Your task to perform on an android device: toggle data saver in the chrome app Image 0: 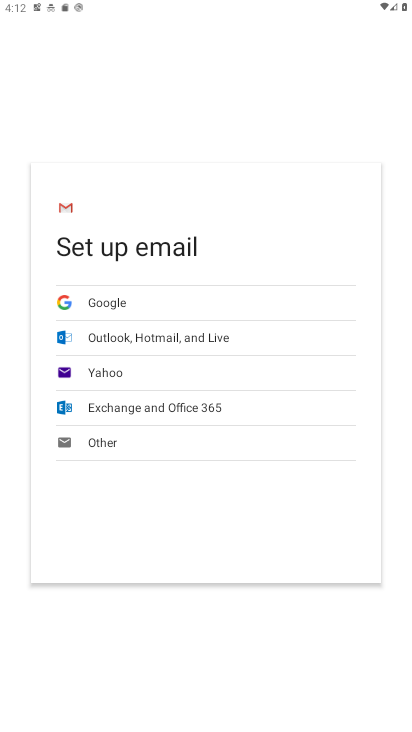
Step 0: press home button
Your task to perform on an android device: toggle data saver in the chrome app Image 1: 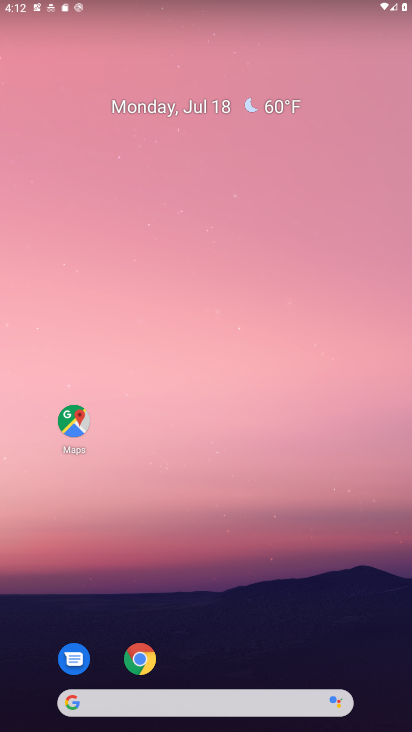
Step 1: drag from (271, 720) to (383, 4)
Your task to perform on an android device: toggle data saver in the chrome app Image 2: 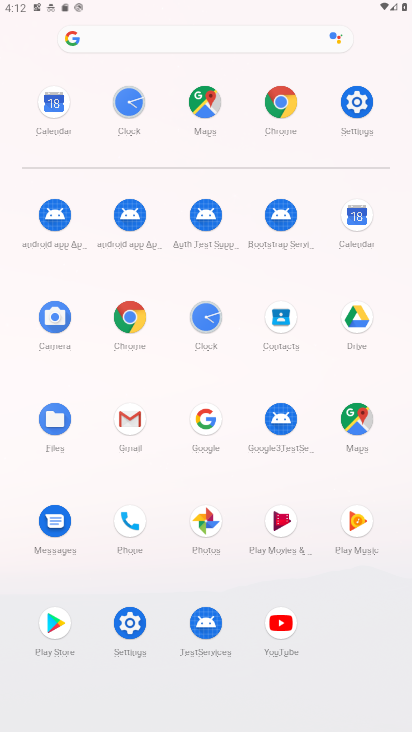
Step 2: click (128, 321)
Your task to perform on an android device: toggle data saver in the chrome app Image 3: 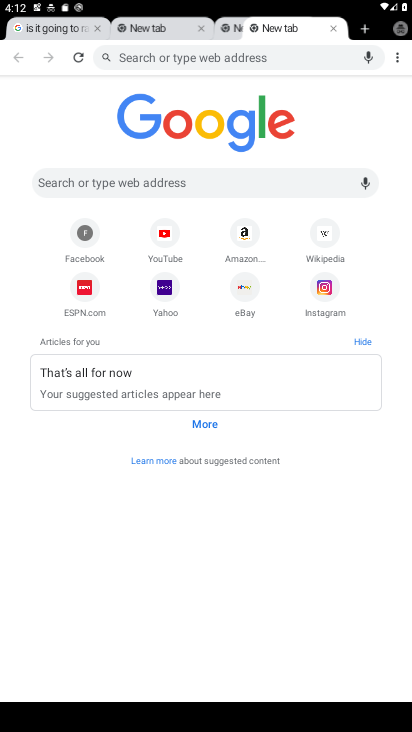
Step 3: drag from (397, 52) to (292, 265)
Your task to perform on an android device: toggle data saver in the chrome app Image 4: 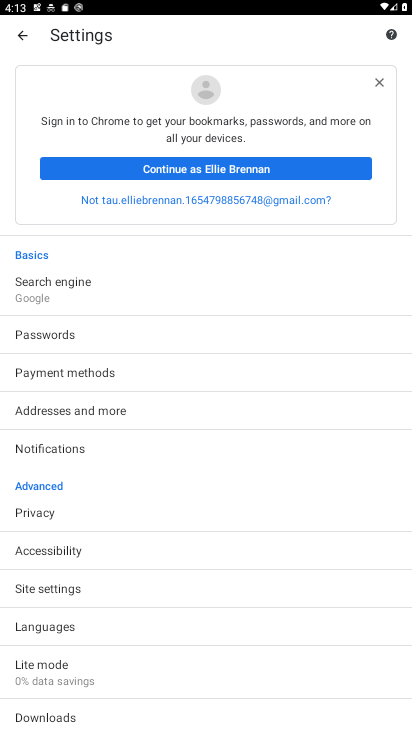
Step 4: click (75, 663)
Your task to perform on an android device: toggle data saver in the chrome app Image 5: 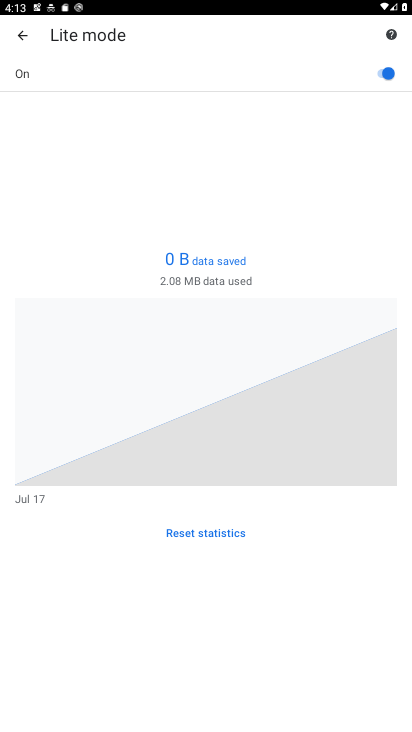
Step 5: click (379, 70)
Your task to perform on an android device: toggle data saver in the chrome app Image 6: 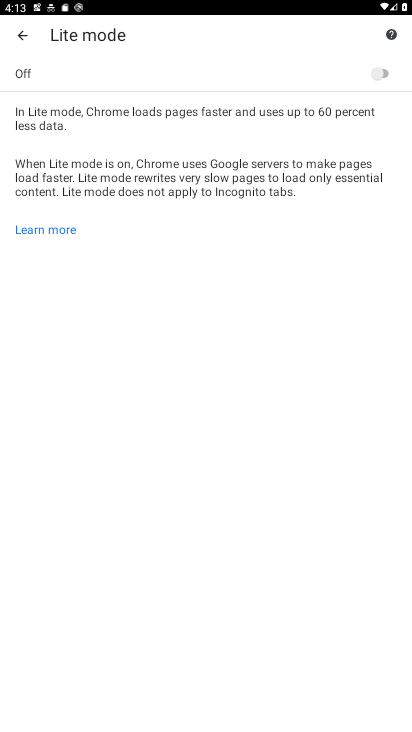
Step 6: task complete